Your task to perform on an android device: change the clock style Image 0: 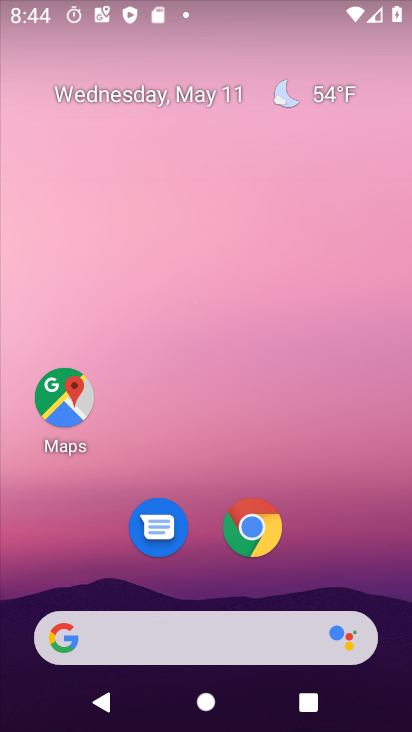
Step 0: drag from (199, 585) to (193, 95)
Your task to perform on an android device: change the clock style Image 1: 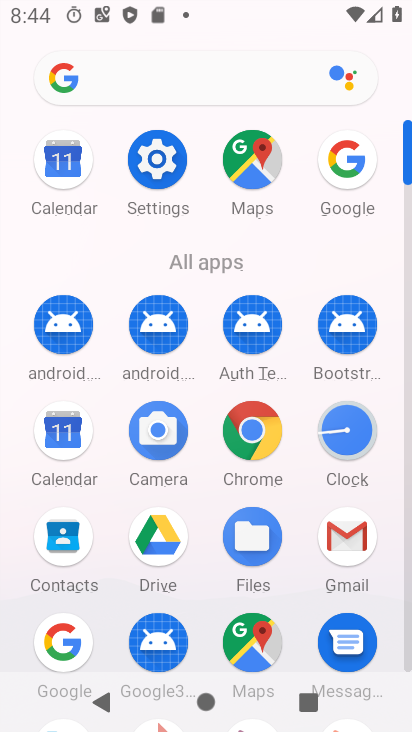
Step 1: click (349, 430)
Your task to perform on an android device: change the clock style Image 2: 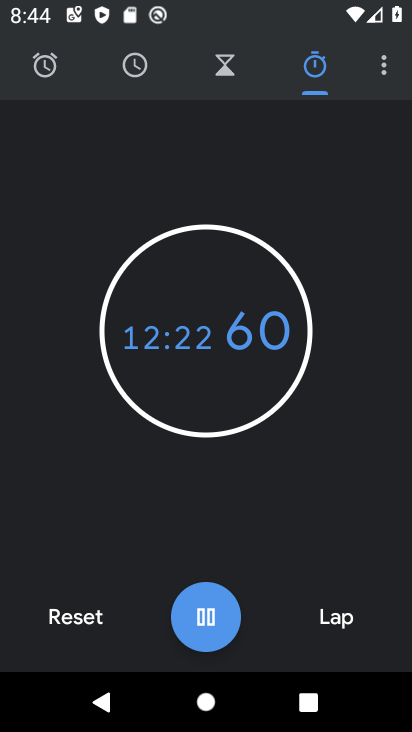
Step 2: click (377, 67)
Your task to perform on an android device: change the clock style Image 3: 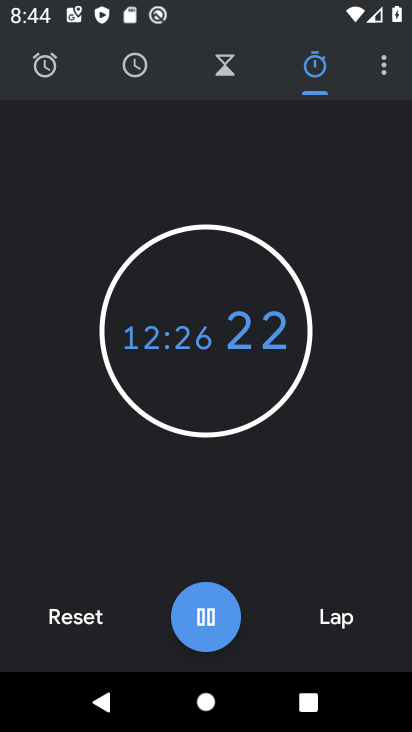
Step 3: click (375, 72)
Your task to perform on an android device: change the clock style Image 4: 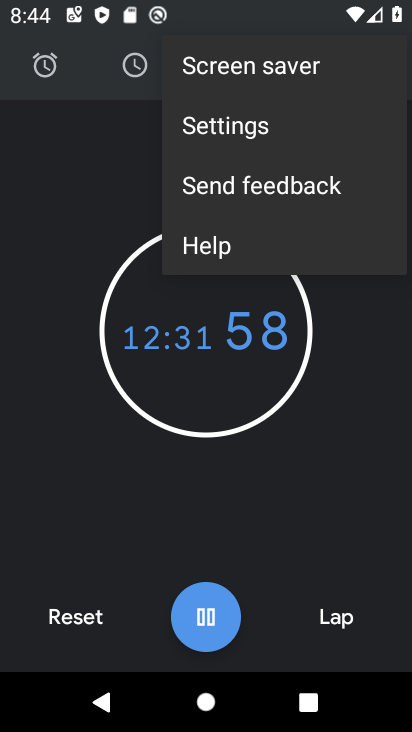
Step 4: click (262, 140)
Your task to perform on an android device: change the clock style Image 5: 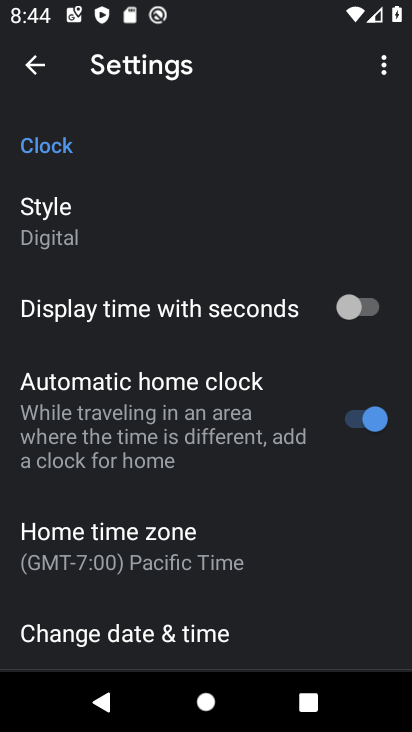
Step 5: click (132, 249)
Your task to perform on an android device: change the clock style Image 6: 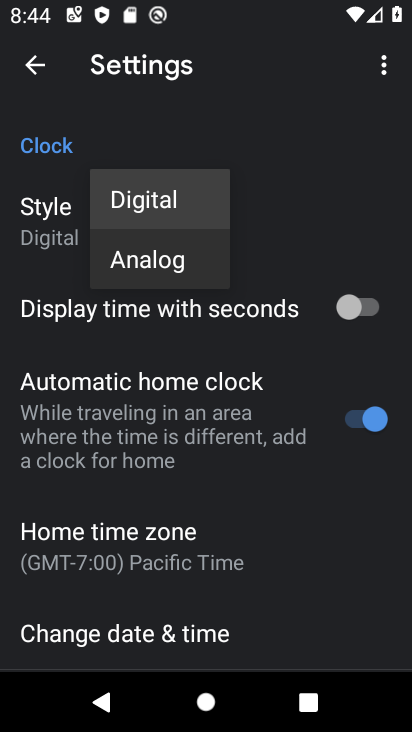
Step 6: click (147, 251)
Your task to perform on an android device: change the clock style Image 7: 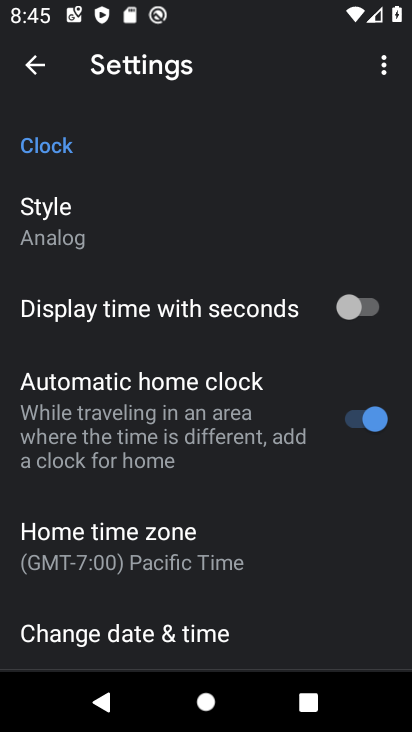
Step 7: task complete